Your task to perform on an android device: turn pop-ups on in chrome Image 0: 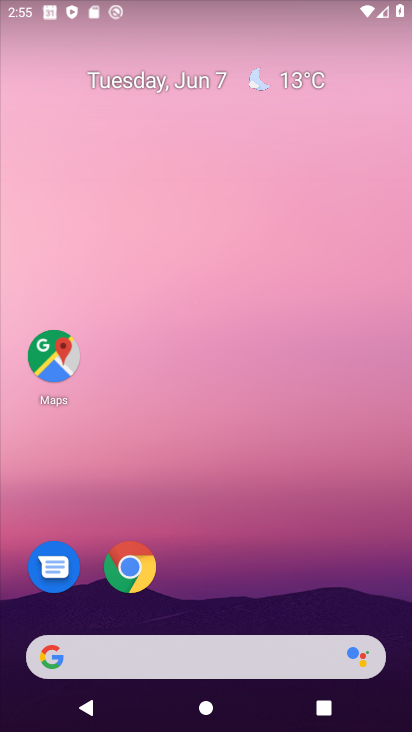
Step 0: click (135, 558)
Your task to perform on an android device: turn pop-ups on in chrome Image 1: 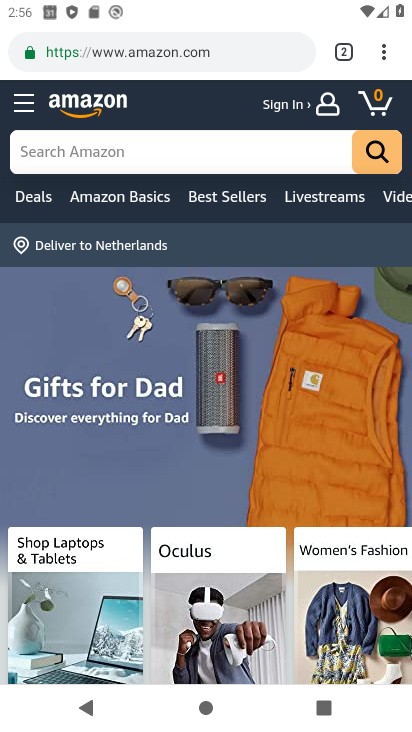
Step 1: drag from (375, 49) to (209, 627)
Your task to perform on an android device: turn pop-ups on in chrome Image 2: 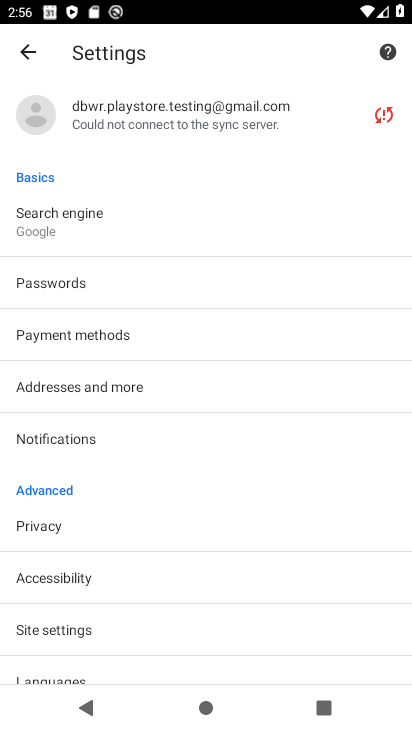
Step 2: click (103, 626)
Your task to perform on an android device: turn pop-ups on in chrome Image 3: 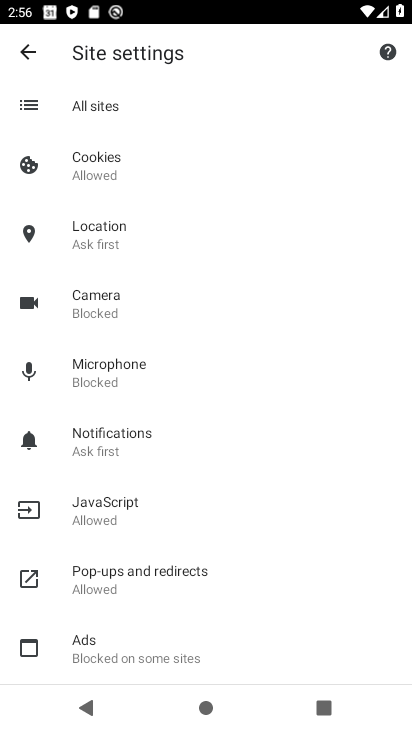
Step 3: click (157, 571)
Your task to perform on an android device: turn pop-ups on in chrome Image 4: 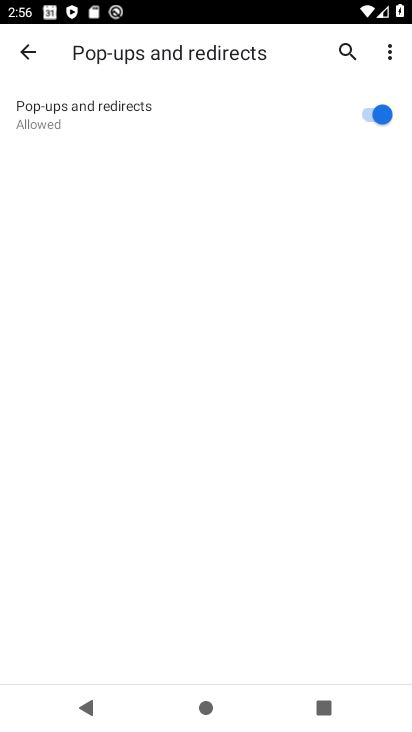
Step 4: task complete